Your task to perform on an android device: Go to Google Image 0: 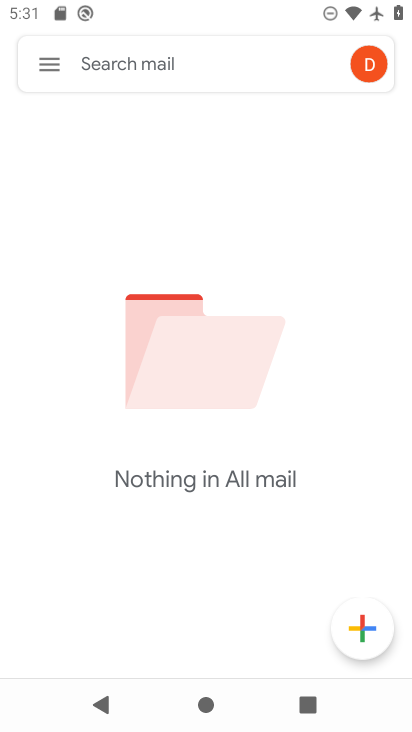
Step 0: press home button
Your task to perform on an android device: Go to Google Image 1: 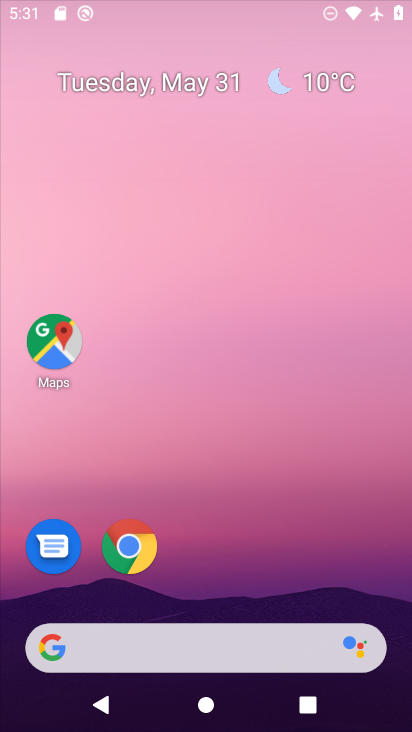
Step 1: drag from (186, 500) to (150, 64)
Your task to perform on an android device: Go to Google Image 2: 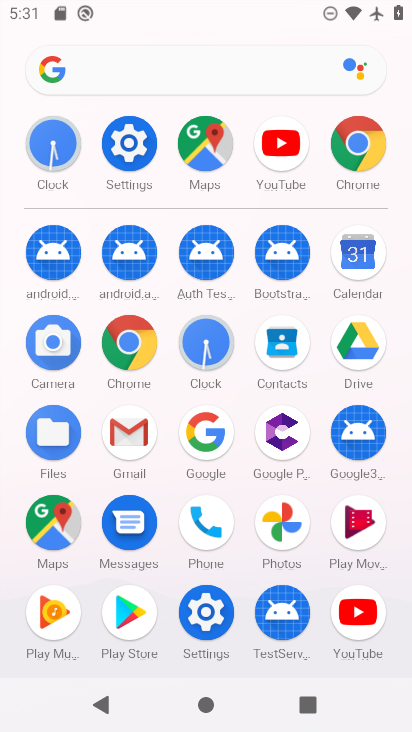
Step 2: click (196, 421)
Your task to perform on an android device: Go to Google Image 3: 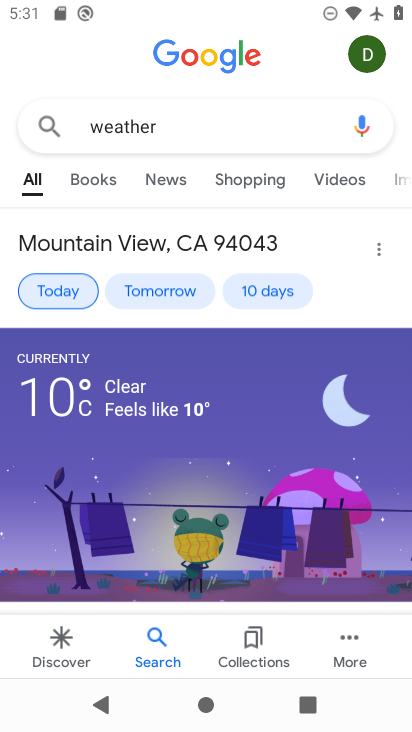
Step 3: task complete